Your task to perform on an android device: Go to notification settings Image 0: 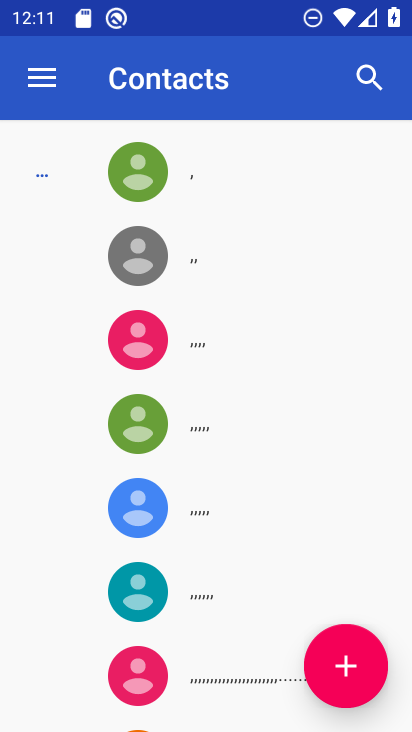
Step 0: press home button
Your task to perform on an android device: Go to notification settings Image 1: 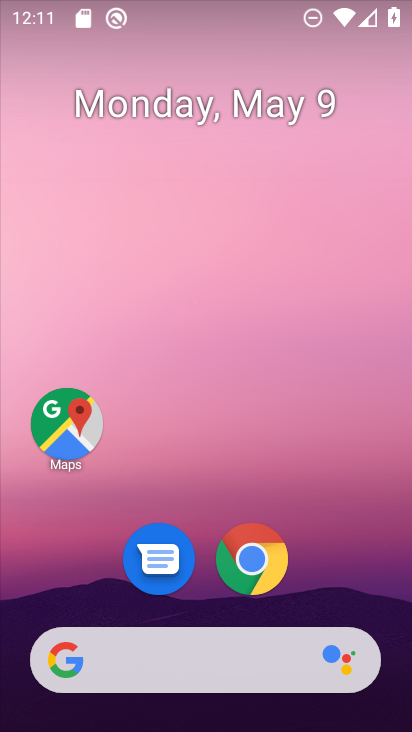
Step 1: drag from (340, 530) to (295, 2)
Your task to perform on an android device: Go to notification settings Image 2: 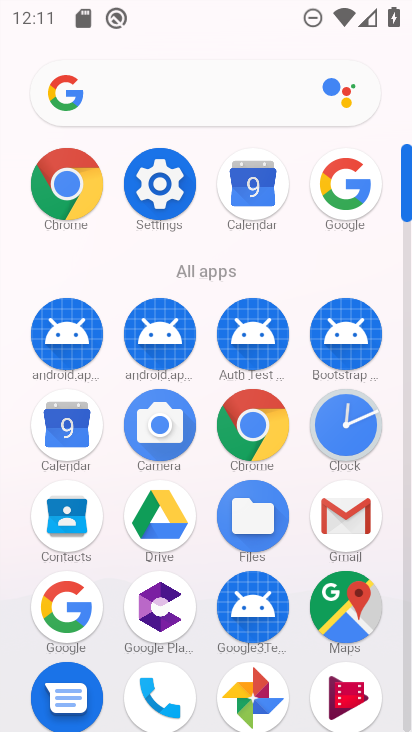
Step 2: click (172, 175)
Your task to perform on an android device: Go to notification settings Image 3: 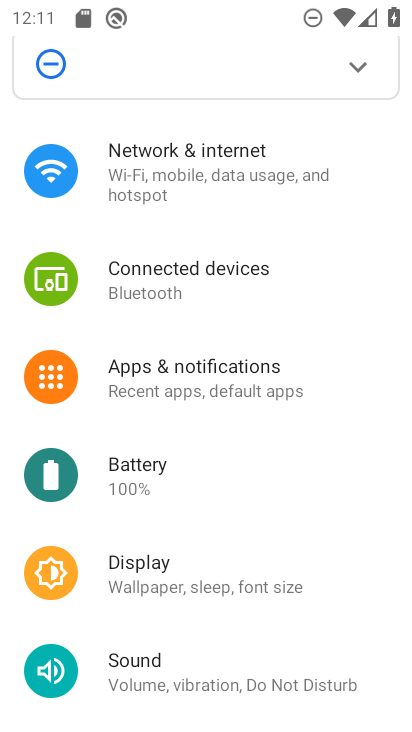
Step 3: click (197, 385)
Your task to perform on an android device: Go to notification settings Image 4: 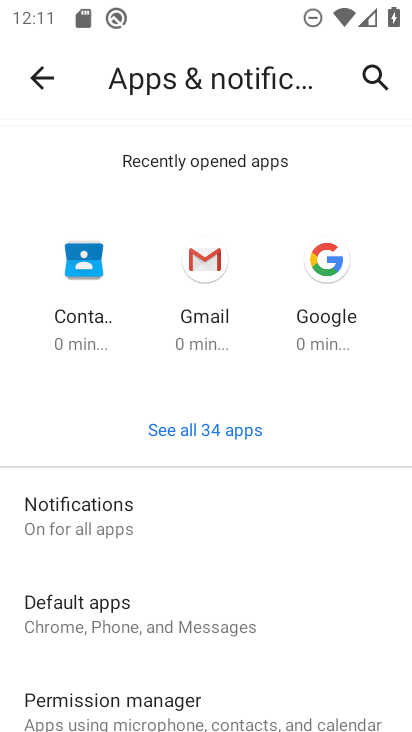
Step 4: task complete